Your task to perform on an android device: turn off data saver in the chrome app Image 0: 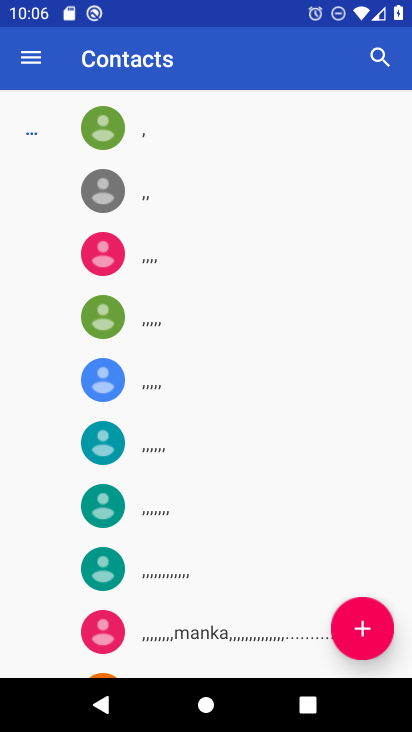
Step 0: press home button
Your task to perform on an android device: turn off data saver in the chrome app Image 1: 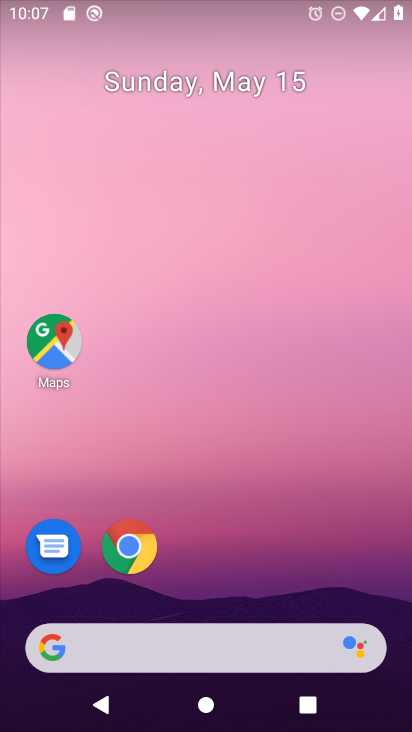
Step 1: drag from (258, 571) to (252, 8)
Your task to perform on an android device: turn off data saver in the chrome app Image 2: 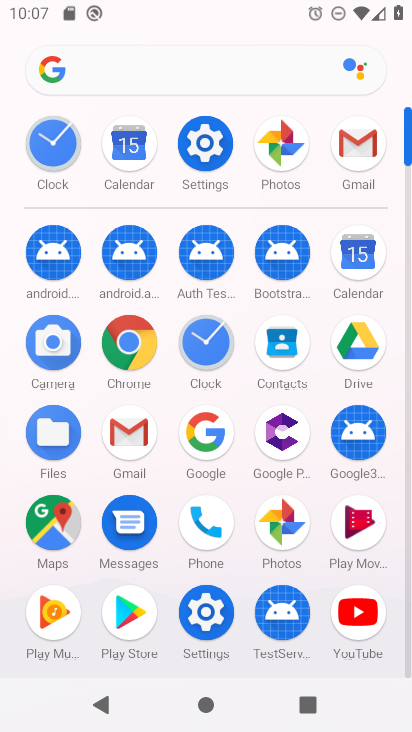
Step 2: click (133, 347)
Your task to perform on an android device: turn off data saver in the chrome app Image 3: 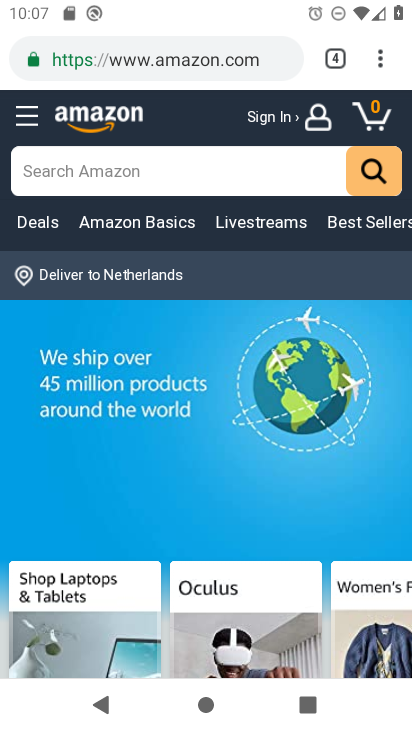
Step 3: click (371, 57)
Your task to perform on an android device: turn off data saver in the chrome app Image 4: 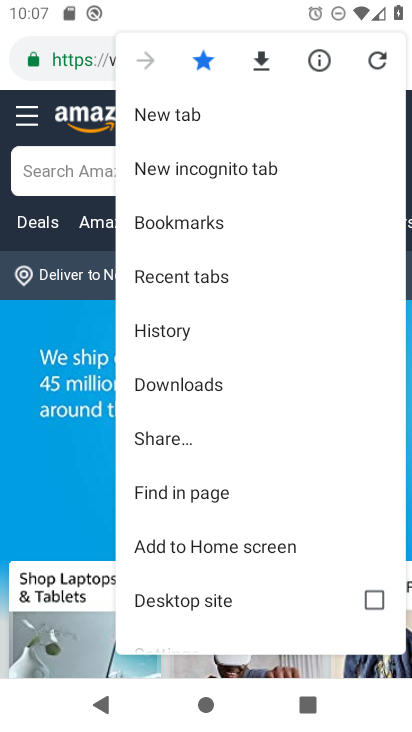
Step 4: drag from (296, 406) to (301, 281)
Your task to perform on an android device: turn off data saver in the chrome app Image 5: 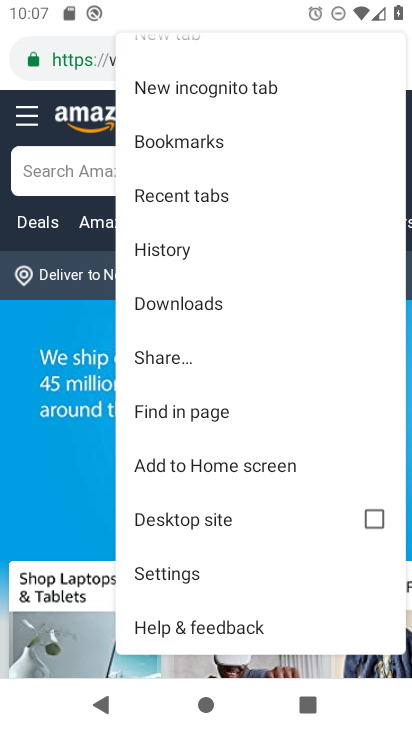
Step 5: click (207, 574)
Your task to perform on an android device: turn off data saver in the chrome app Image 6: 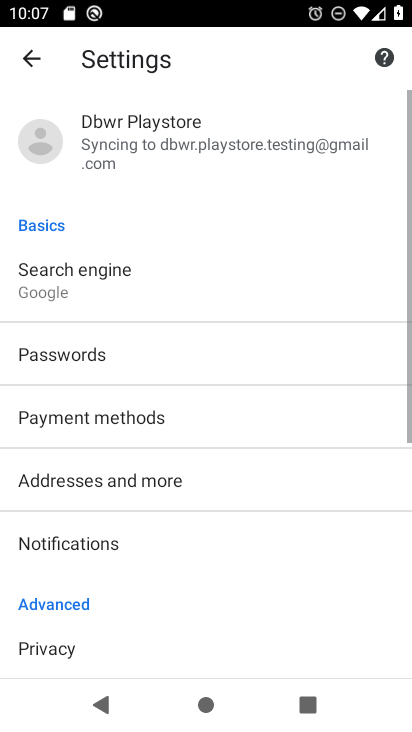
Step 6: drag from (259, 562) to (260, 83)
Your task to perform on an android device: turn off data saver in the chrome app Image 7: 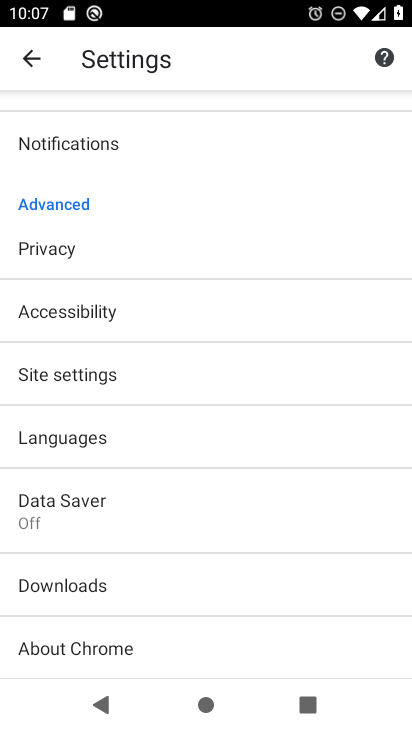
Step 7: click (177, 519)
Your task to perform on an android device: turn off data saver in the chrome app Image 8: 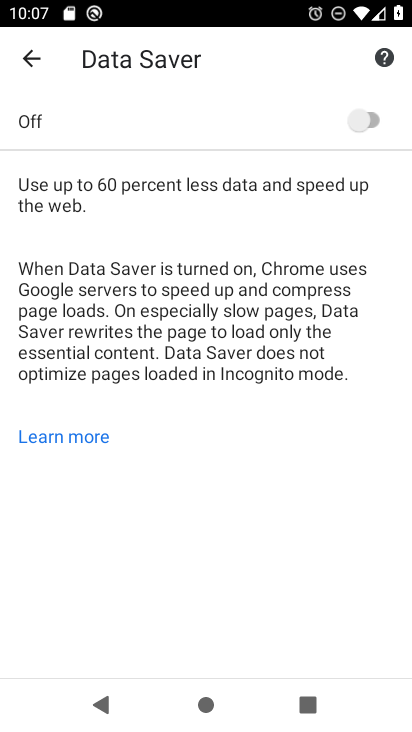
Step 8: task complete